Your task to perform on an android device: turn on location history Image 0: 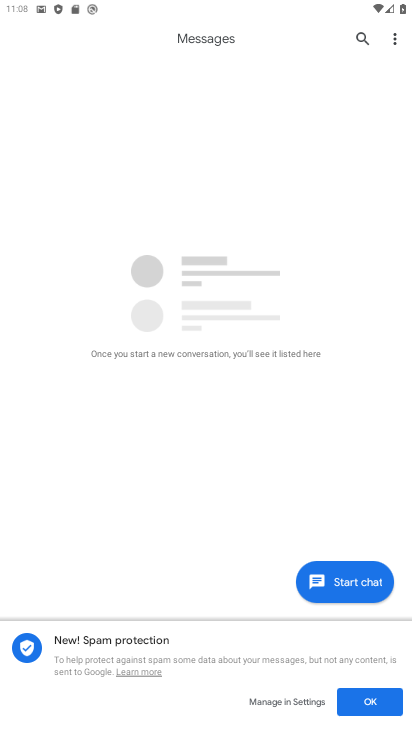
Step 0: press home button
Your task to perform on an android device: turn on location history Image 1: 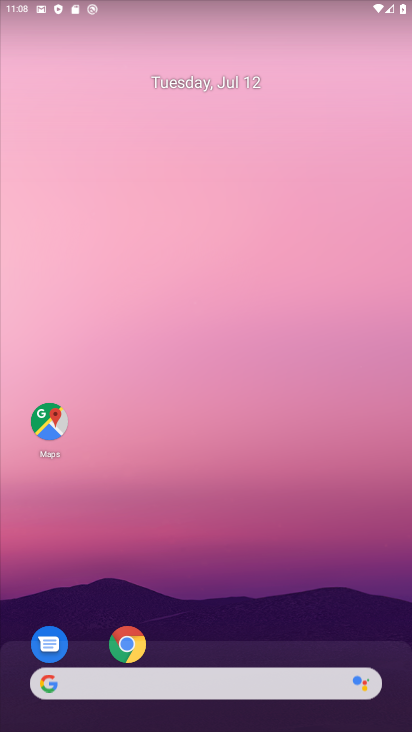
Step 1: drag from (181, 669) to (278, 93)
Your task to perform on an android device: turn on location history Image 2: 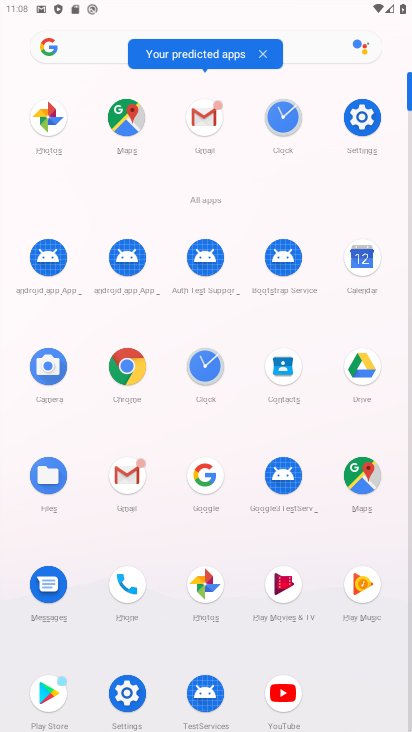
Step 2: click (125, 686)
Your task to perform on an android device: turn on location history Image 3: 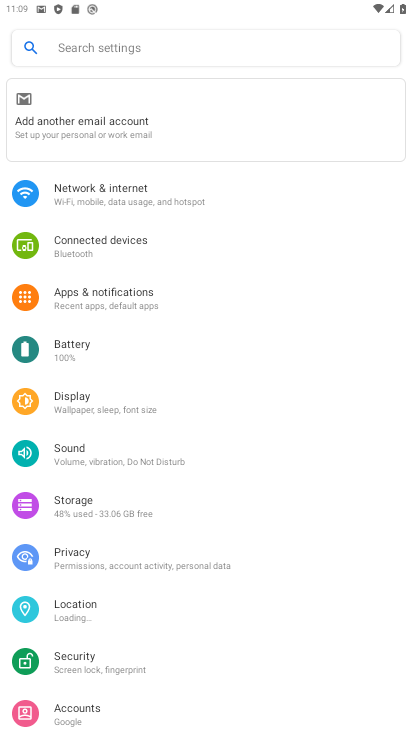
Step 3: drag from (73, 645) to (193, 375)
Your task to perform on an android device: turn on location history Image 4: 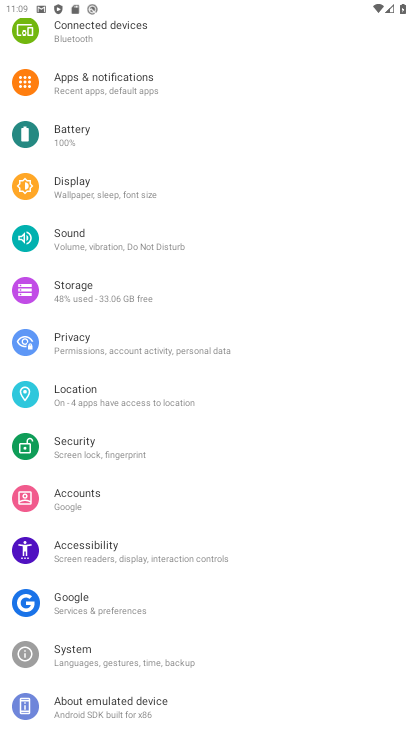
Step 4: click (128, 406)
Your task to perform on an android device: turn on location history Image 5: 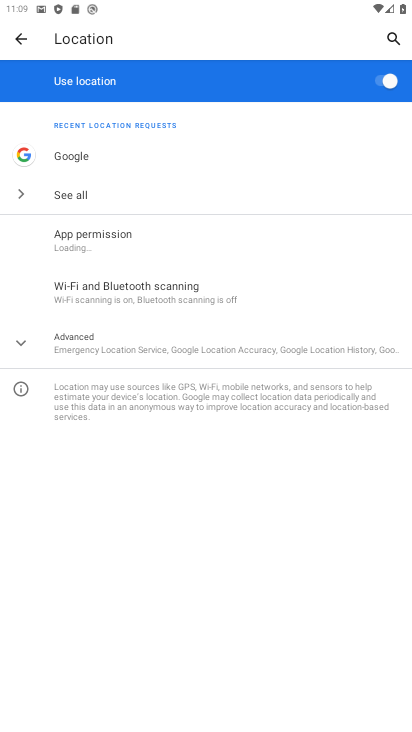
Step 5: click (170, 347)
Your task to perform on an android device: turn on location history Image 6: 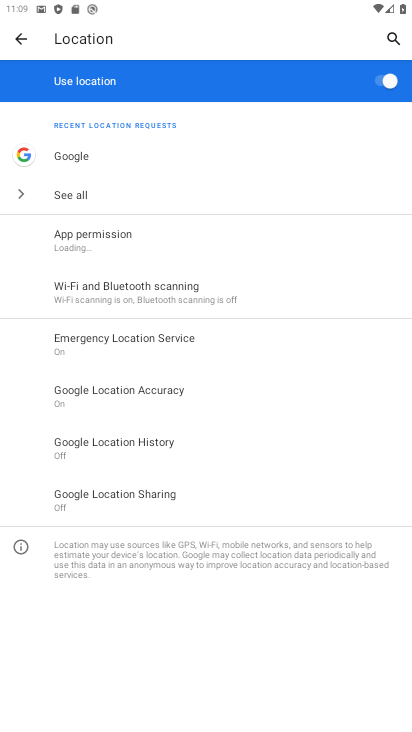
Step 6: click (188, 445)
Your task to perform on an android device: turn on location history Image 7: 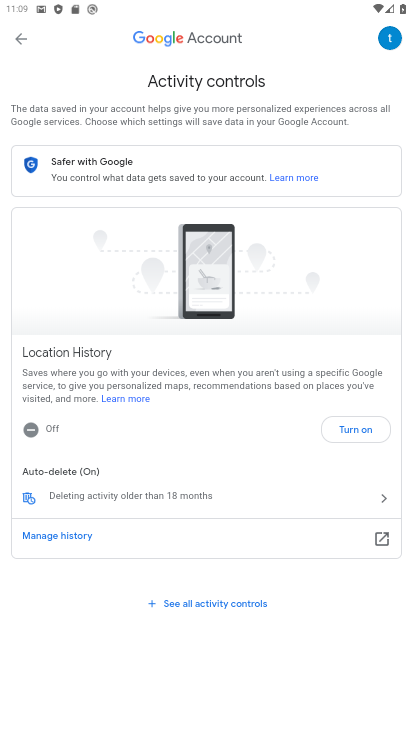
Step 7: click (382, 423)
Your task to perform on an android device: turn on location history Image 8: 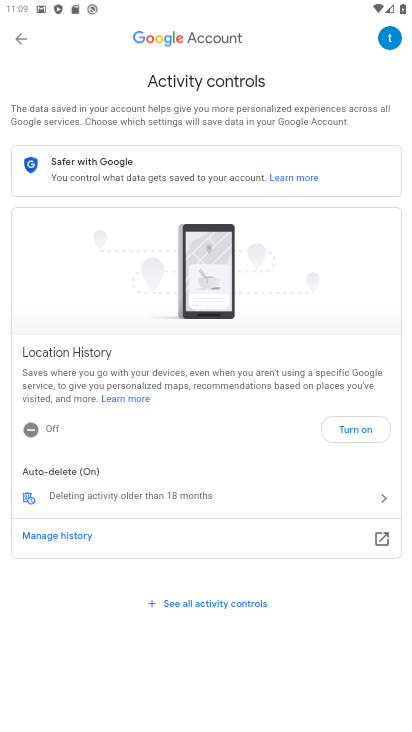
Step 8: click (355, 434)
Your task to perform on an android device: turn on location history Image 9: 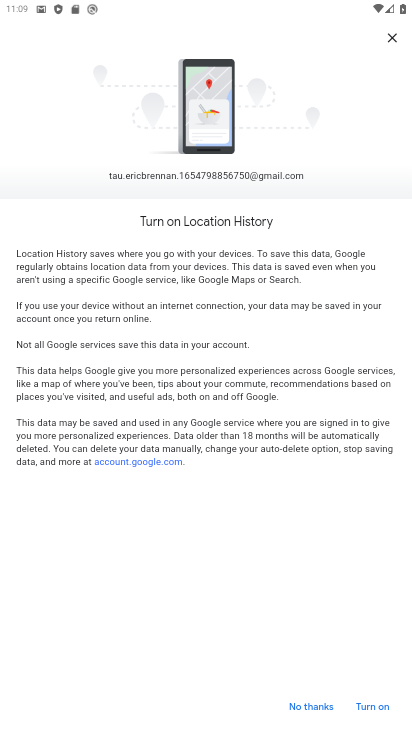
Step 9: click (379, 707)
Your task to perform on an android device: turn on location history Image 10: 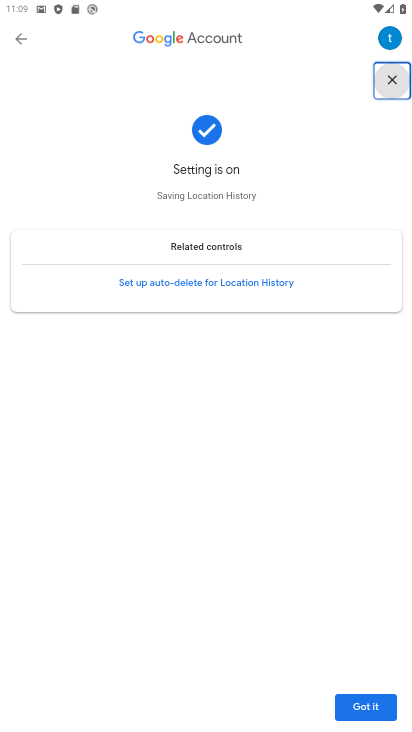
Step 10: click (378, 710)
Your task to perform on an android device: turn on location history Image 11: 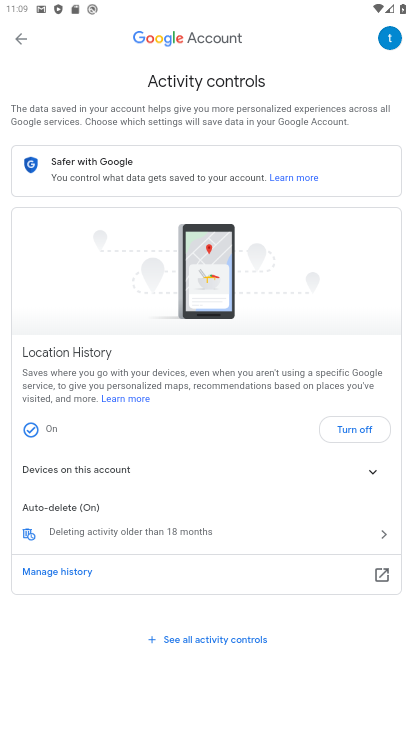
Step 11: task complete